Your task to perform on an android device: Open my contact list Image 0: 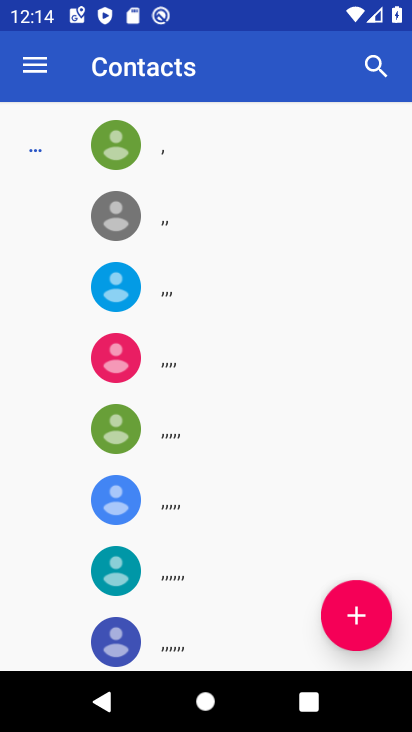
Step 0: task complete